Your task to perform on an android device: change the clock style Image 0: 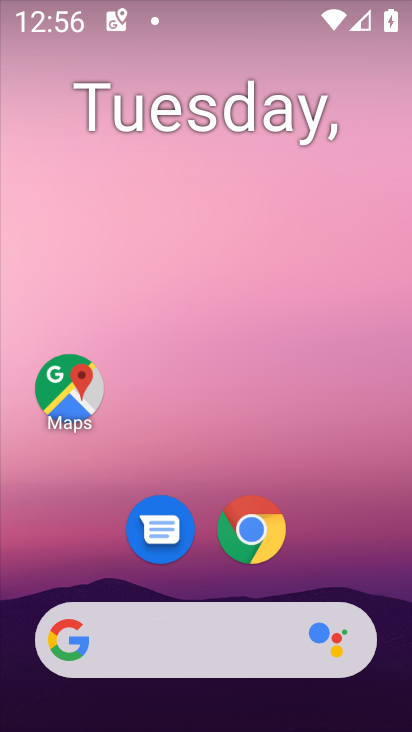
Step 0: drag from (196, 593) to (273, 70)
Your task to perform on an android device: change the clock style Image 1: 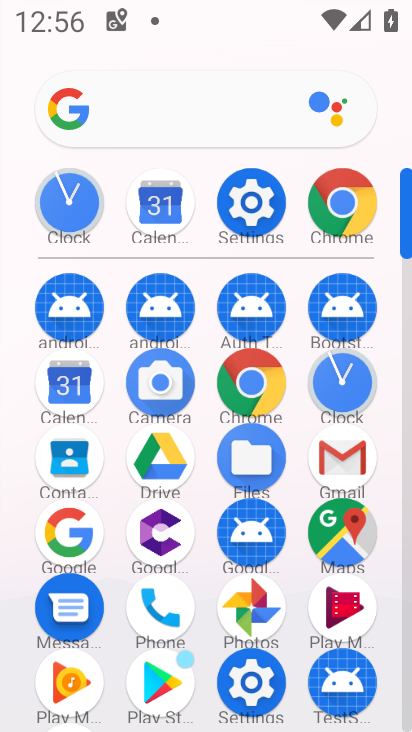
Step 1: click (360, 384)
Your task to perform on an android device: change the clock style Image 2: 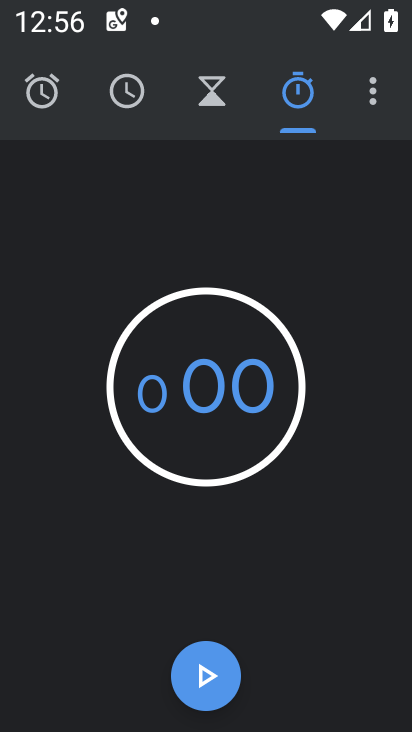
Step 2: click (360, 97)
Your task to perform on an android device: change the clock style Image 3: 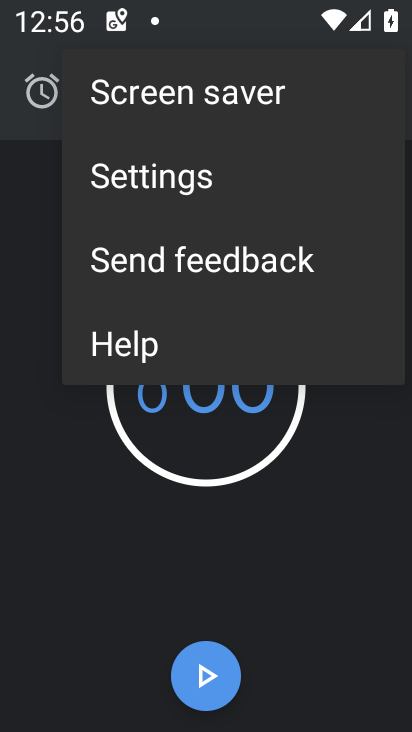
Step 3: click (160, 177)
Your task to perform on an android device: change the clock style Image 4: 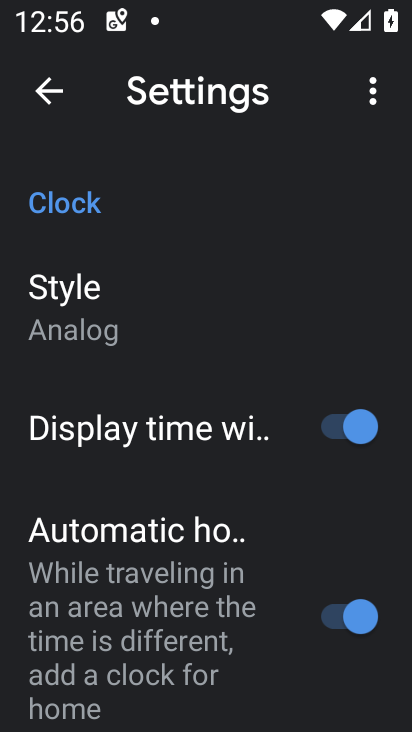
Step 4: click (87, 310)
Your task to perform on an android device: change the clock style Image 5: 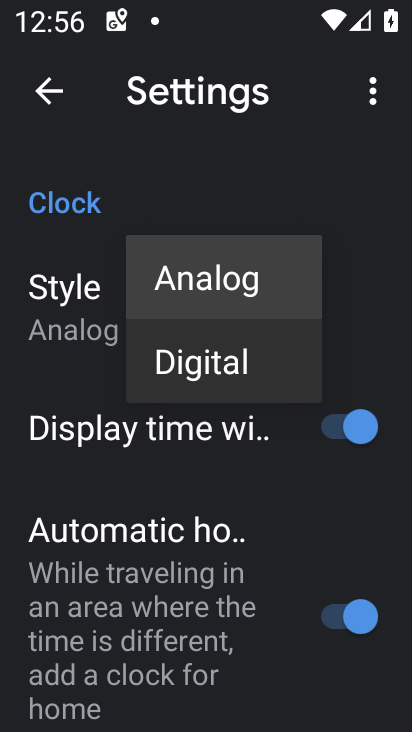
Step 5: click (195, 361)
Your task to perform on an android device: change the clock style Image 6: 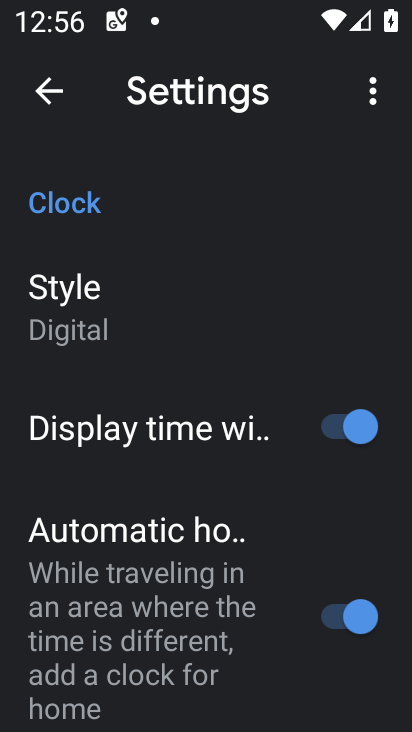
Step 6: task complete